Your task to perform on an android device: What's the weather today? Image 0: 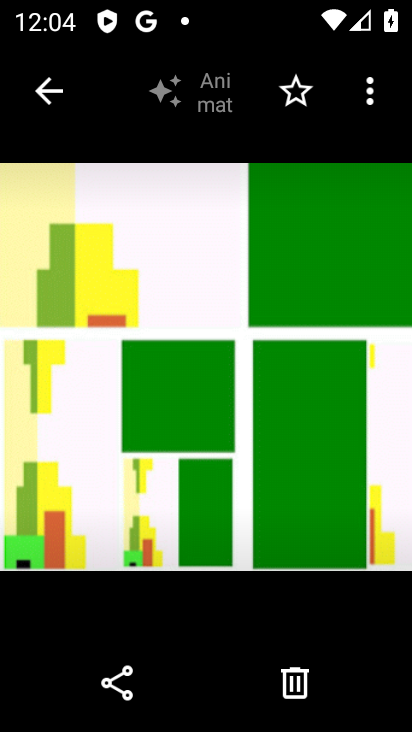
Step 0: press home button
Your task to perform on an android device: What's the weather today? Image 1: 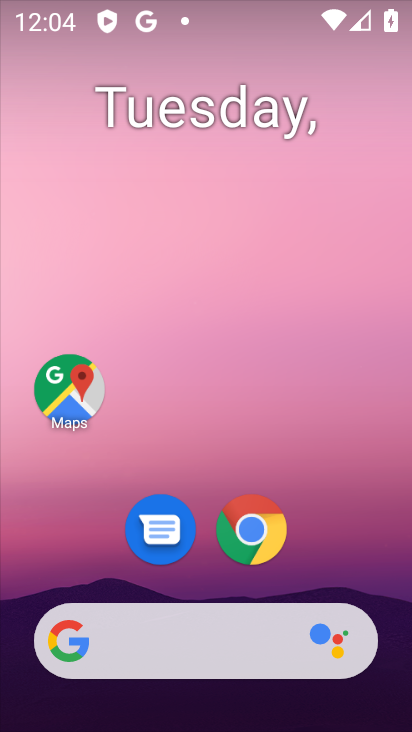
Step 1: drag from (211, 707) to (207, 181)
Your task to perform on an android device: What's the weather today? Image 2: 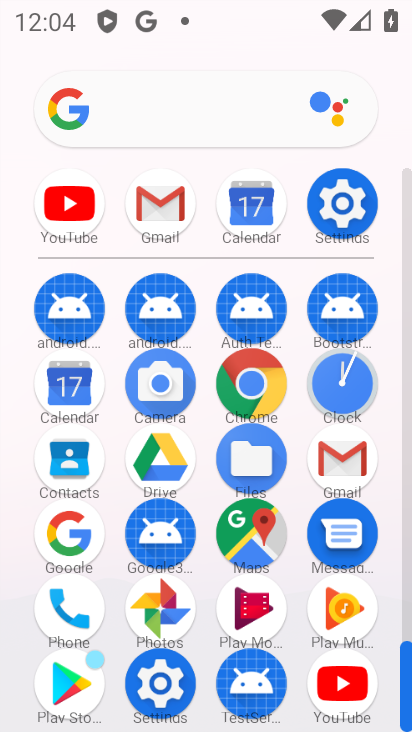
Step 2: drag from (204, 604) to (209, 190)
Your task to perform on an android device: What's the weather today? Image 3: 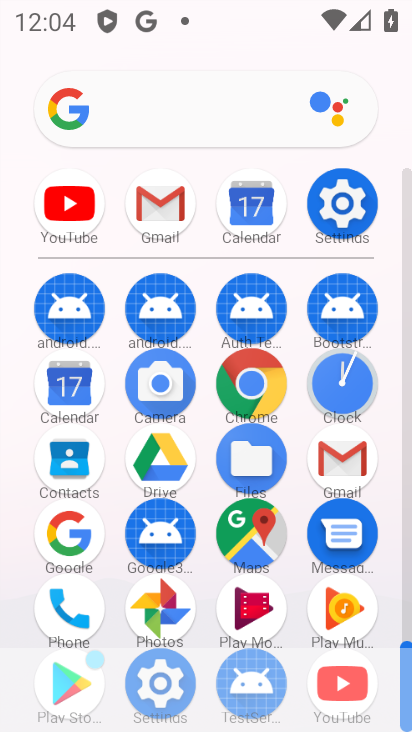
Step 3: click (58, 537)
Your task to perform on an android device: What's the weather today? Image 4: 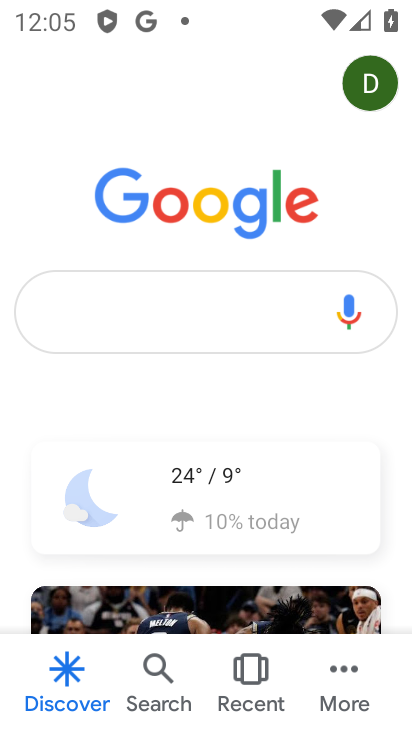
Step 4: click (192, 483)
Your task to perform on an android device: What's the weather today? Image 5: 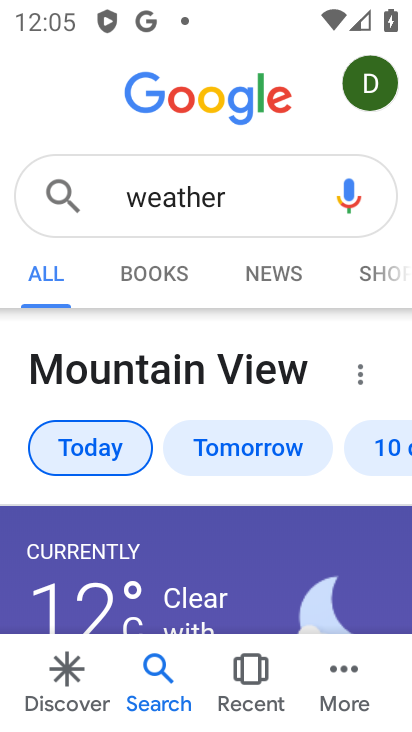
Step 5: drag from (188, 571) to (204, 298)
Your task to perform on an android device: What's the weather today? Image 6: 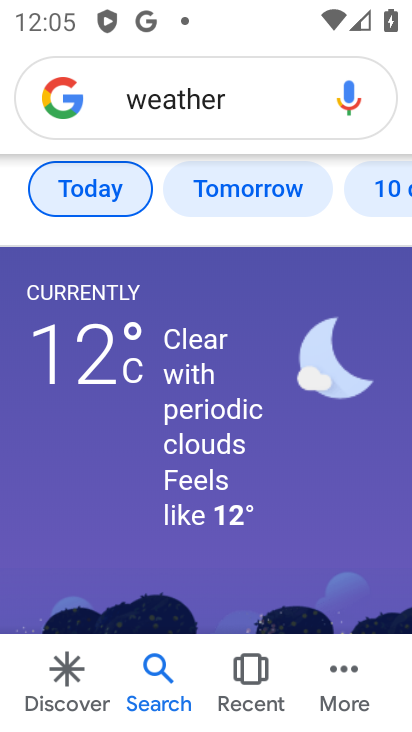
Step 6: click (91, 182)
Your task to perform on an android device: What's the weather today? Image 7: 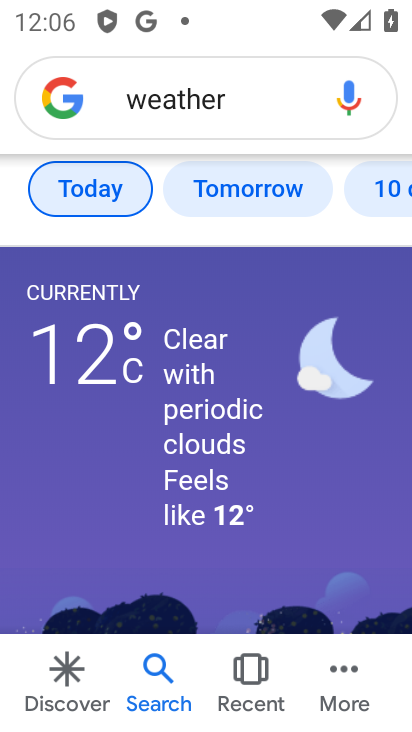
Step 7: task complete